Your task to perform on an android device: What's the weather? Image 0: 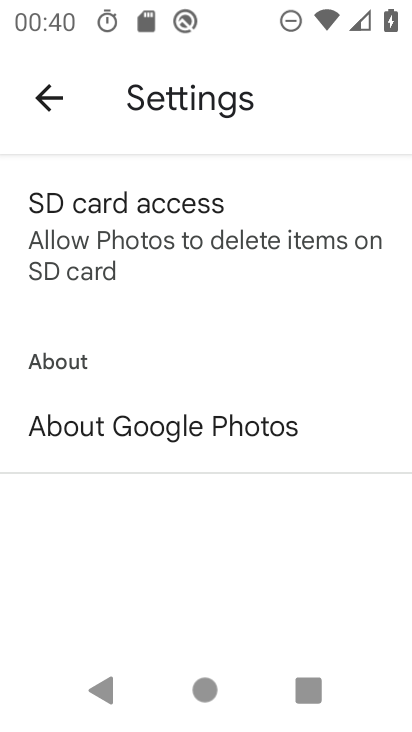
Step 0: press home button
Your task to perform on an android device: What's the weather? Image 1: 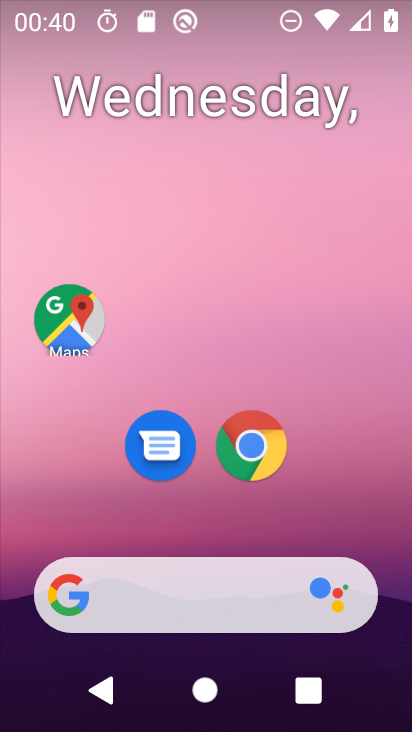
Step 1: click (209, 595)
Your task to perform on an android device: What's the weather? Image 2: 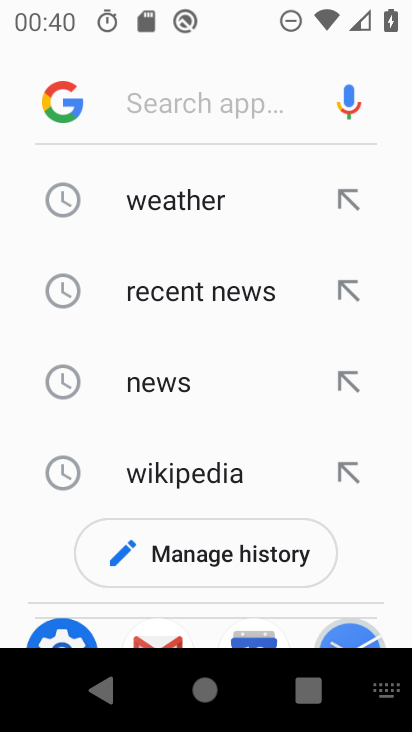
Step 2: type "what's the weather"
Your task to perform on an android device: What's the weather? Image 3: 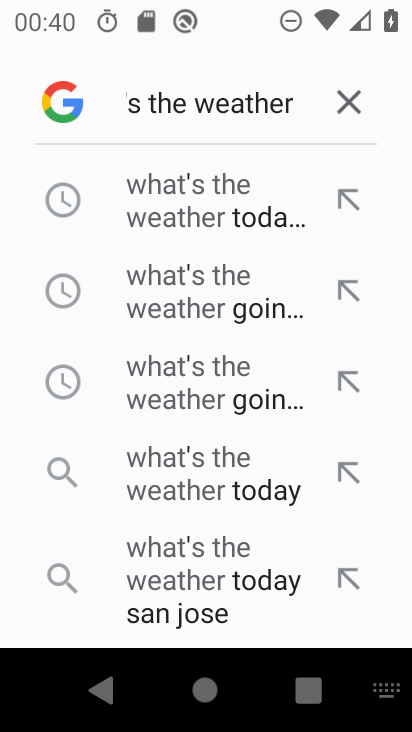
Step 3: drag from (219, 540) to (260, 194)
Your task to perform on an android device: What's the weather? Image 4: 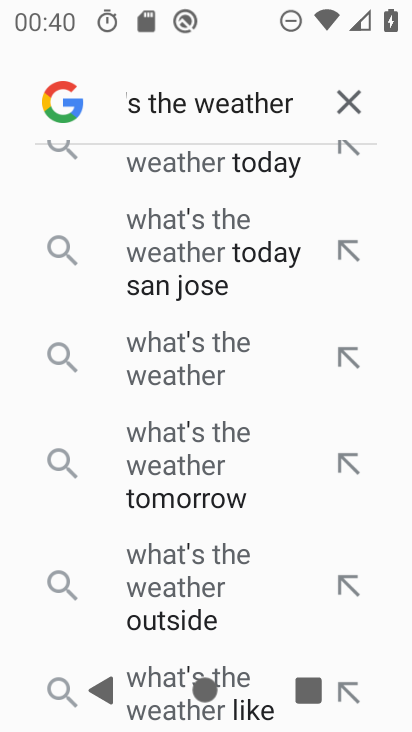
Step 4: click (220, 363)
Your task to perform on an android device: What's the weather? Image 5: 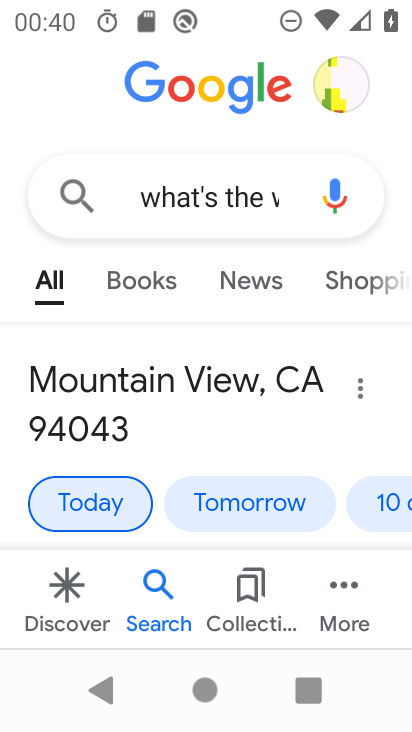
Step 5: task complete